Your task to perform on an android device: Open my contact list Image 0: 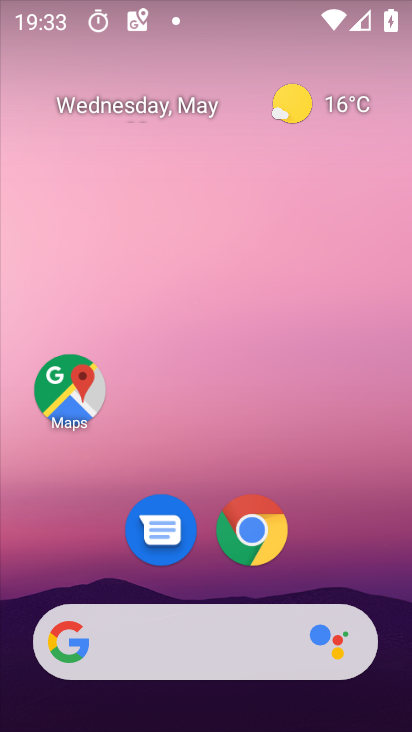
Step 0: drag from (171, 592) to (295, 291)
Your task to perform on an android device: Open my contact list Image 1: 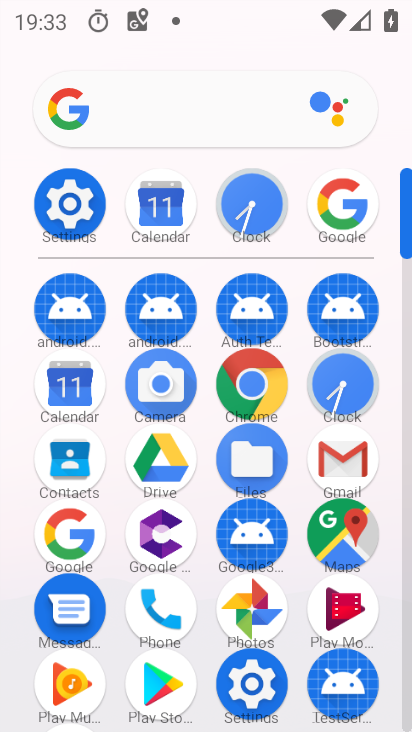
Step 1: click (83, 474)
Your task to perform on an android device: Open my contact list Image 2: 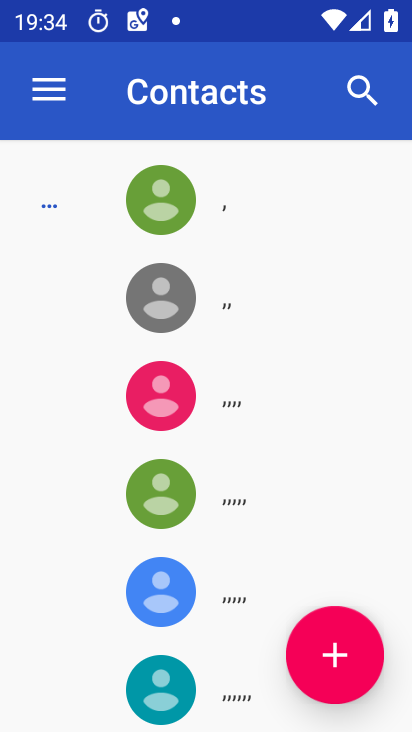
Step 2: task complete